Your task to perform on an android device: find photos in the google photos app Image 0: 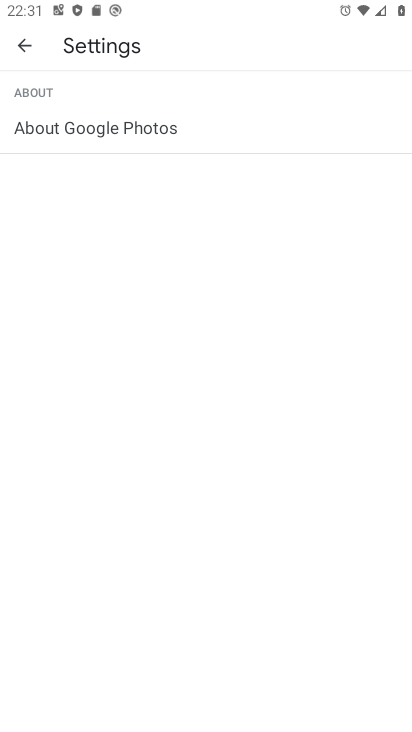
Step 0: press home button
Your task to perform on an android device: find photos in the google photos app Image 1: 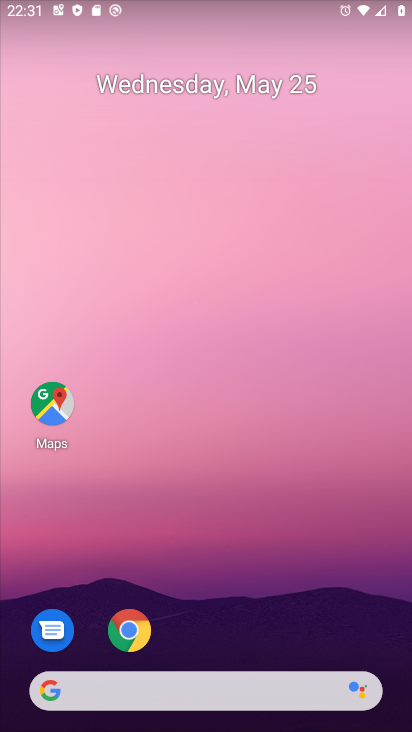
Step 1: drag from (240, 632) to (242, 170)
Your task to perform on an android device: find photos in the google photos app Image 2: 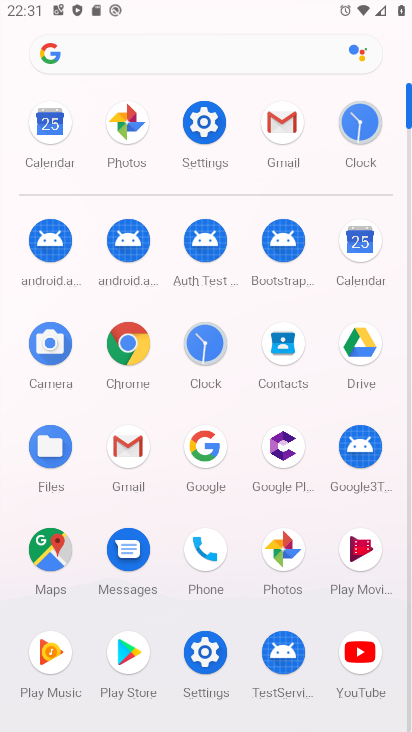
Step 2: click (129, 137)
Your task to perform on an android device: find photos in the google photos app Image 3: 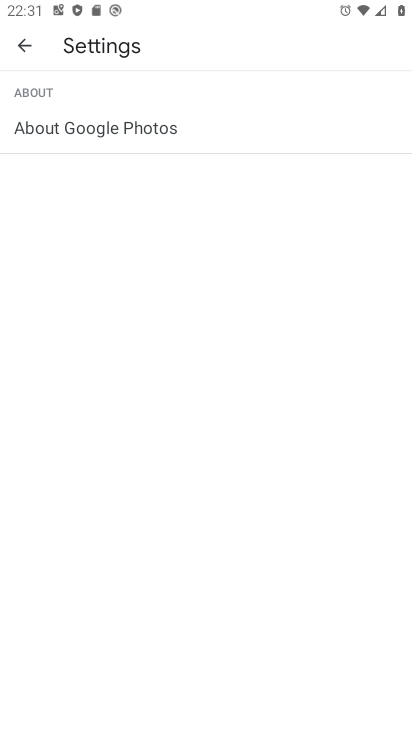
Step 3: click (17, 46)
Your task to perform on an android device: find photos in the google photos app Image 4: 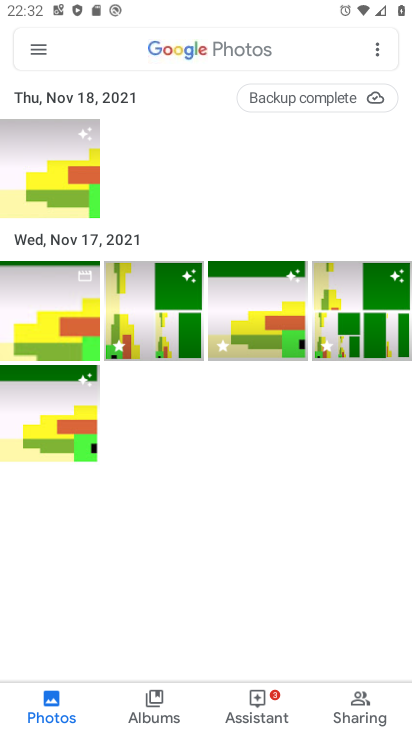
Step 4: click (210, 65)
Your task to perform on an android device: find photos in the google photos app Image 5: 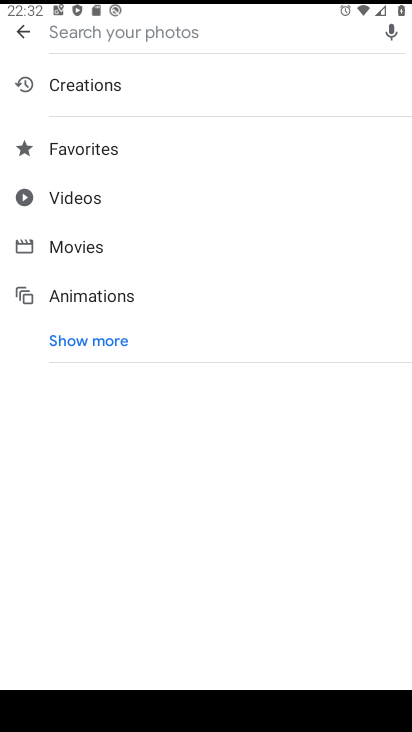
Step 5: type "aa"
Your task to perform on an android device: find photos in the google photos app Image 6: 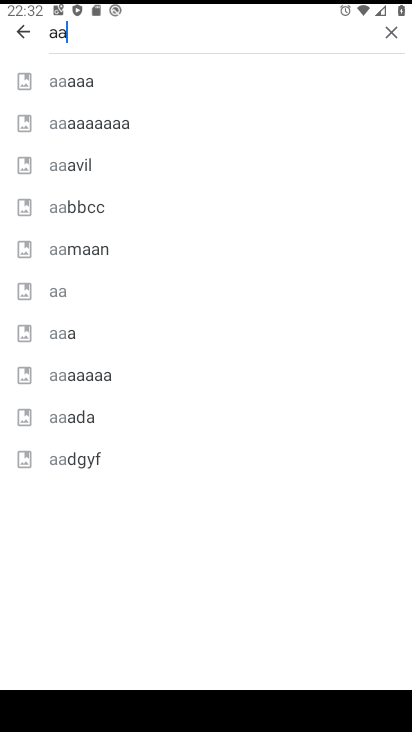
Step 6: click (113, 159)
Your task to perform on an android device: find photos in the google photos app Image 7: 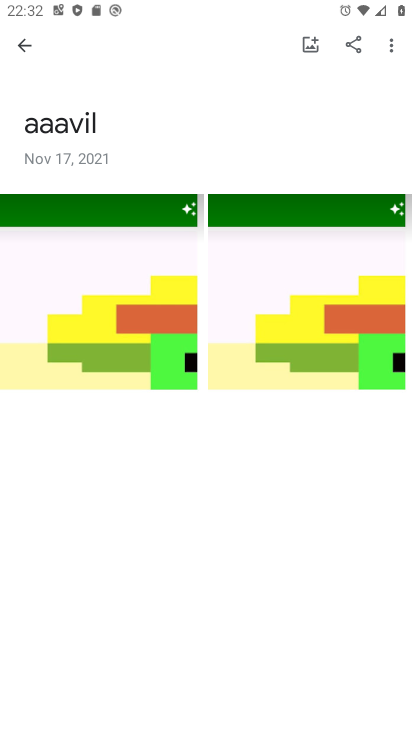
Step 7: task complete